Your task to perform on an android device: check data usage Image 0: 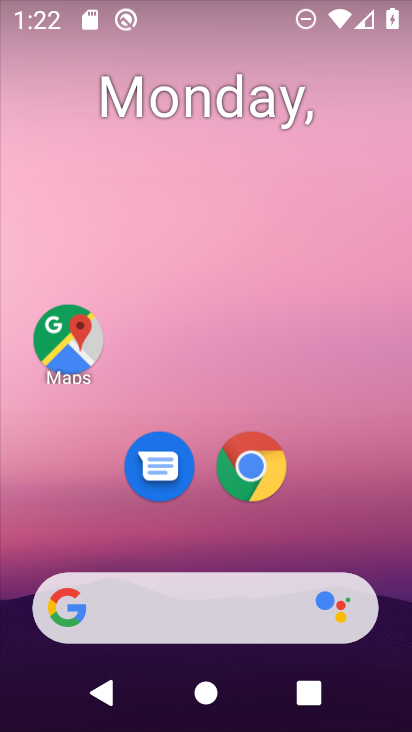
Step 0: drag from (218, 563) to (262, 23)
Your task to perform on an android device: check data usage Image 1: 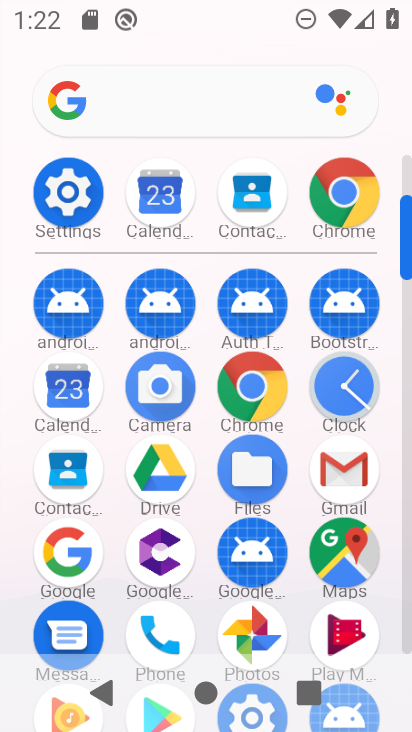
Step 1: click (79, 206)
Your task to perform on an android device: check data usage Image 2: 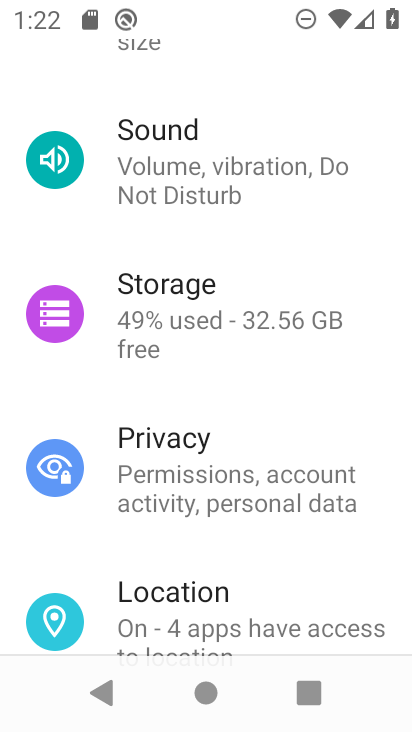
Step 2: drag from (281, 261) to (272, 727)
Your task to perform on an android device: check data usage Image 3: 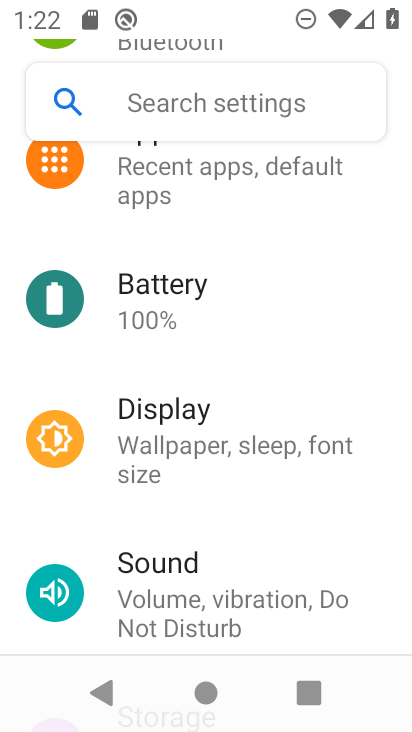
Step 3: drag from (233, 246) to (253, 731)
Your task to perform on an android device: check data usage Image 4: 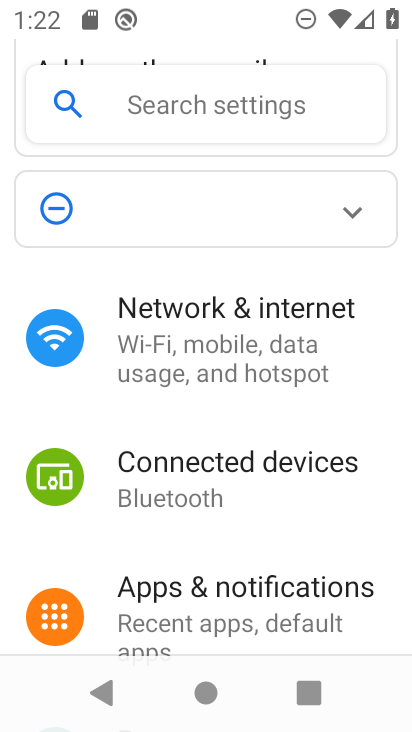
Step 4: drag from (253, 613) to (284, 637)
Your task to perform on an android device: check data usage Image 5: 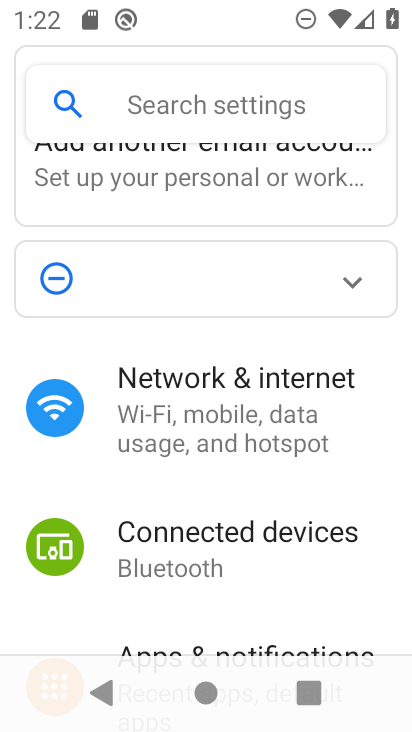
Step 5: click (204, 427)
Your task to perform on an android device: check data usage Image 6: 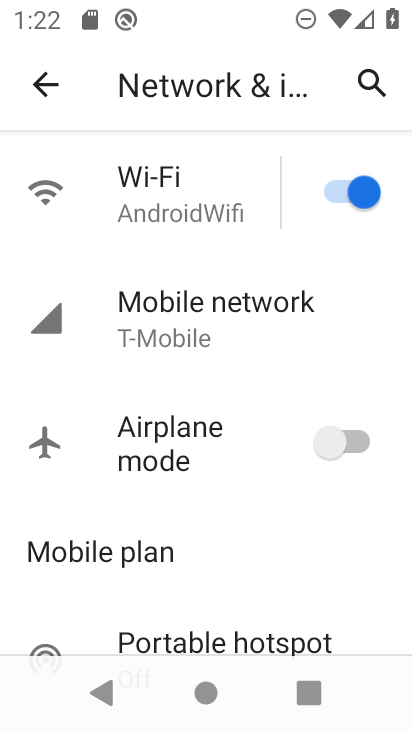
Step 6: click (223, 334)
Your task to perform on an android device: check data usage Image 7: 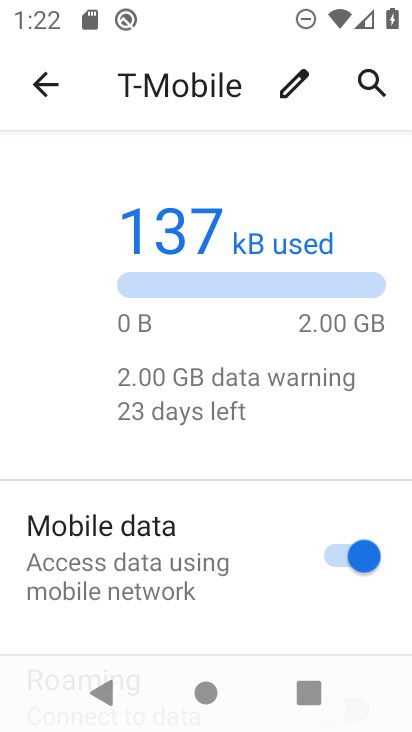
Step 7: drag from (222, 521) to (280, 176)
Your task to perform on an android device: check data usage Image 8: 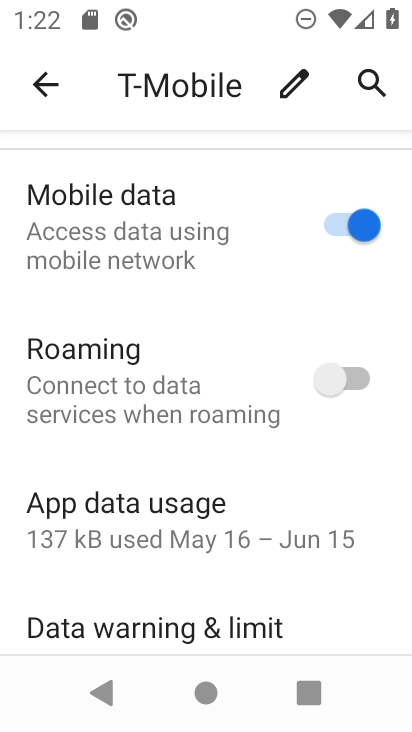
Step 8: click (212, 537)
Your task to perform on an android device: check data usage Image 9: 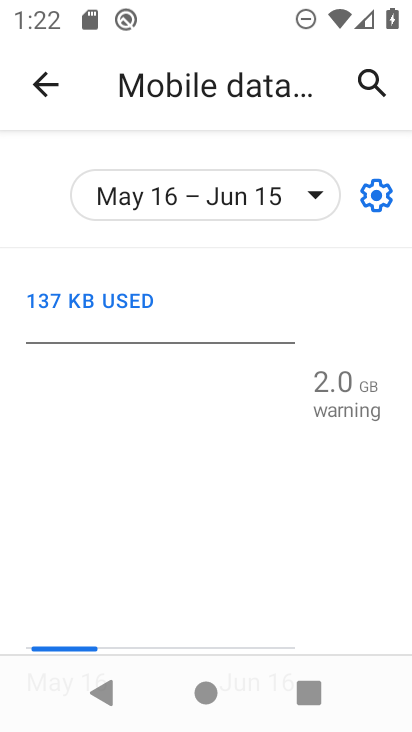
Step 9: task complete